Your task to perform on an android device: toggle improve location accuracy Image 0: 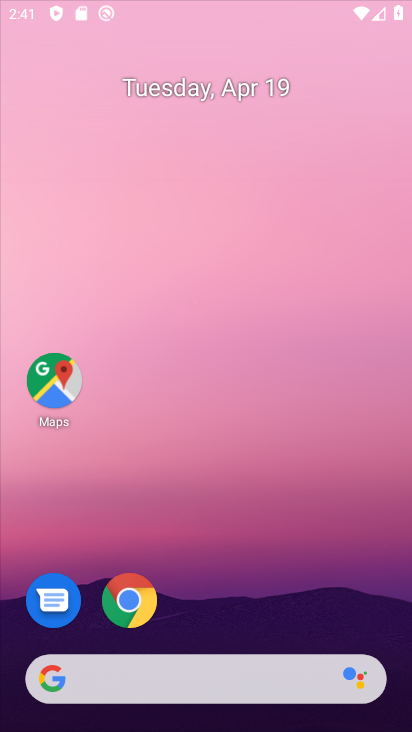
Step 0: drag from (381, 526) to (249, 69)
Your task to perform on an android device: toggle improve location accuracy Image 1: 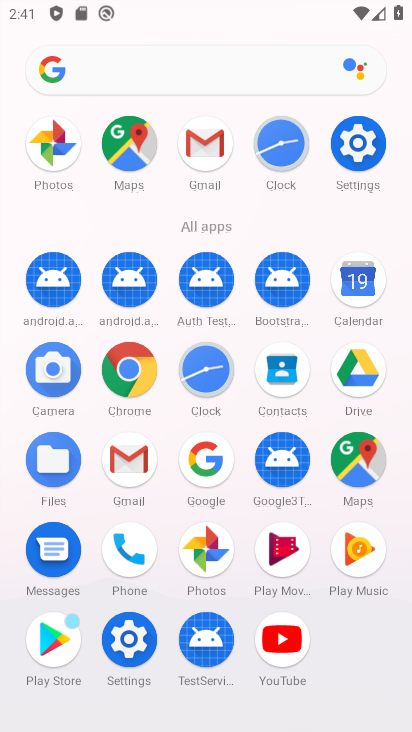
Step 1: click (123, 658)
Your task to perform on an android device: toggle improve location accuracy Image 2: 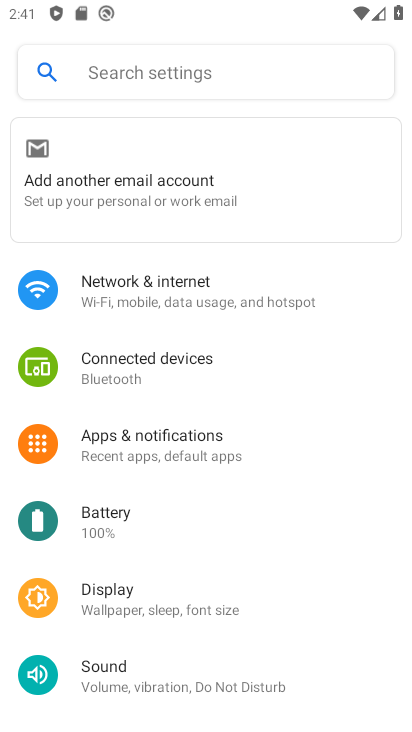
Step 2: drag from (284, 653) to (266, 376)
Your task to perform on an android device: toggle improve location accuracy Image 3: 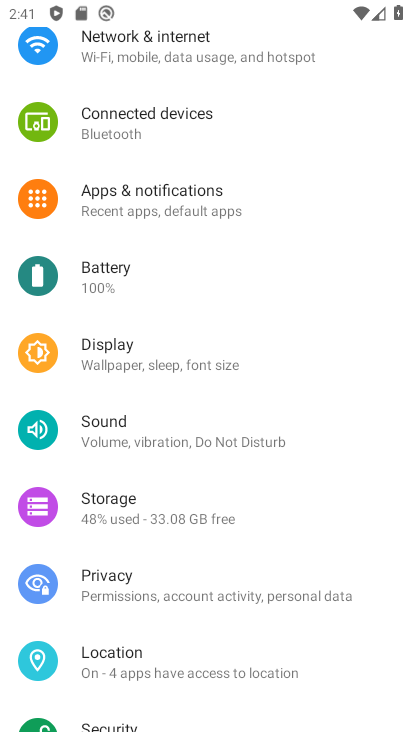
Step 3: click (272, 659)
Your task to perform on an android device: toggle improve location accuracy Image 4: 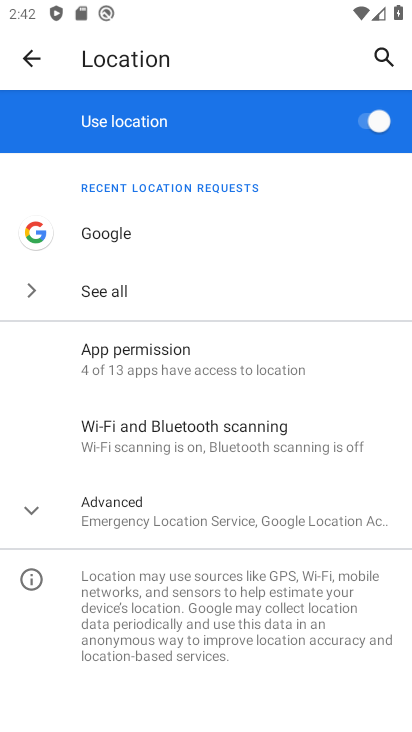
Step 4: click (274, 522)
Your task to perform on an android device: toggle improve location accuracy Image 5: 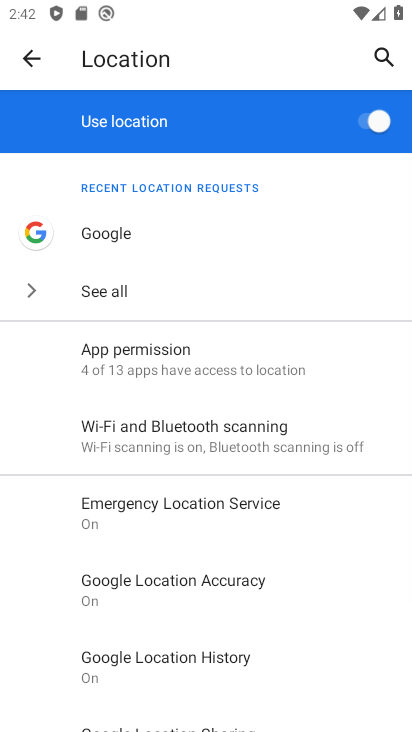
Step 5: drag from (337, 613) to (292, 340)
Your task to perform on an android device: toggle improve location accuracy Image 6: 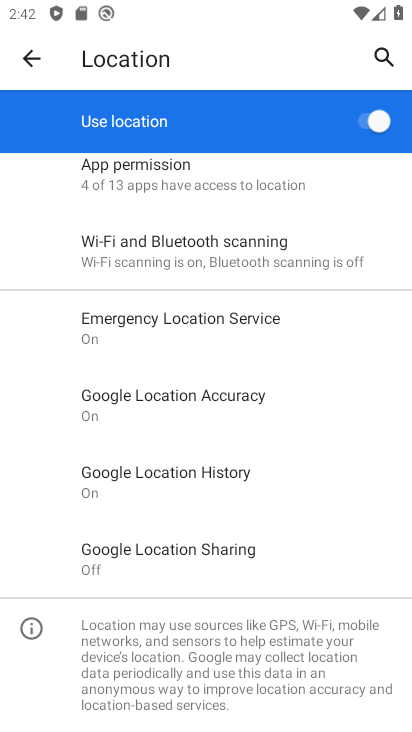
Step 6: click (273, 407)
Your task to perform on an android device: toggle improve location accuracy Image 7: 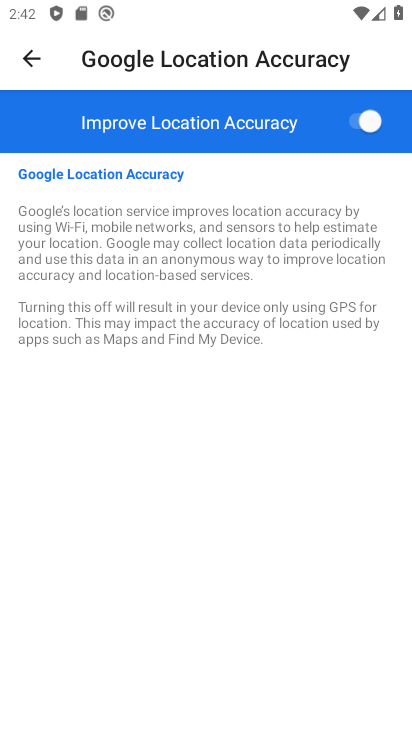
Step 7: click (365, 119)
Your task to perform on an android device: toggle improve location accuracy Image 8: 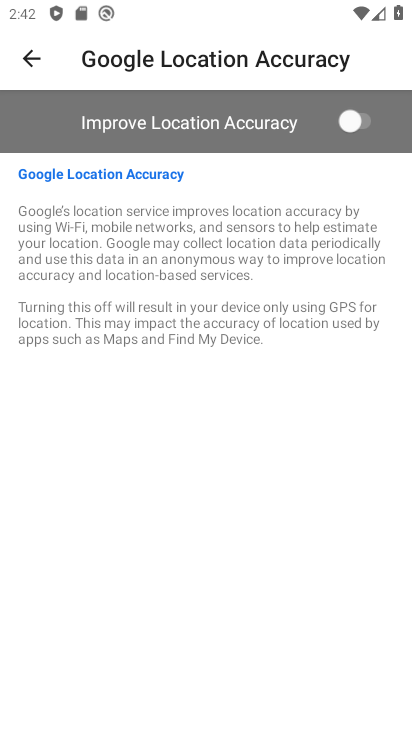
Step 8: task complete